Your task to perform on an android device: toggle show notifications on the lock screen Image 0: 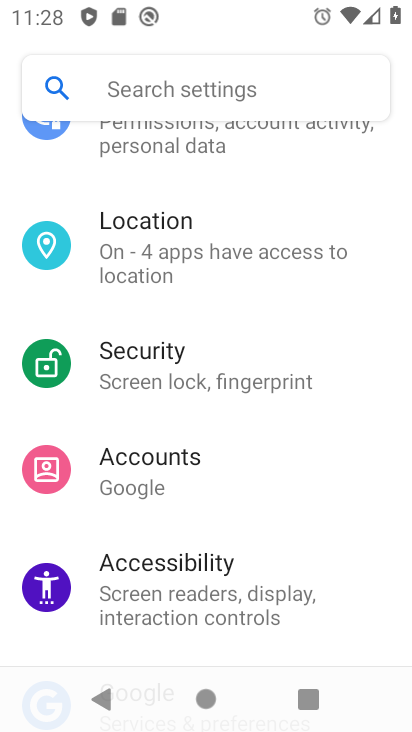
Step 0: drag from (207, 177) to (189, 566)
Your task to perform on an android device: toggle show notifications on the lock screen Image 1: 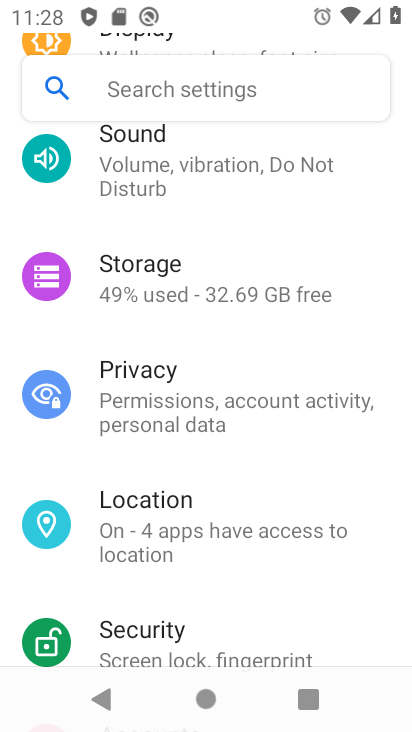
Step 1: drag from (217, 139) to (214, 640)
Your task to perform on an android device: toggle show notifications on the lock screen Image 2: 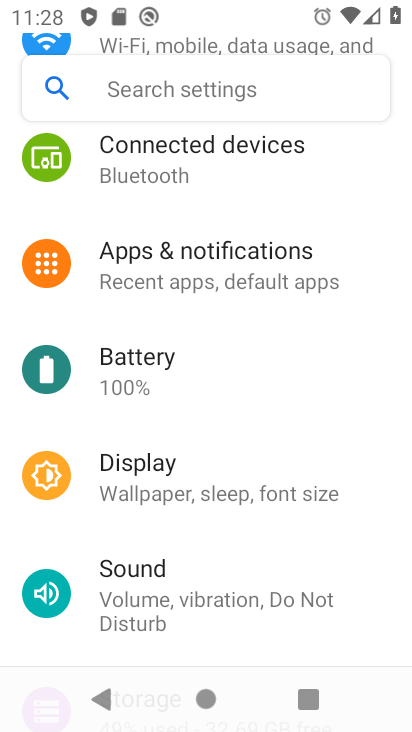
Step 2: click (186, 279)
Your task to perform on an android device: toggle show notifications on the lock screen Image 3: 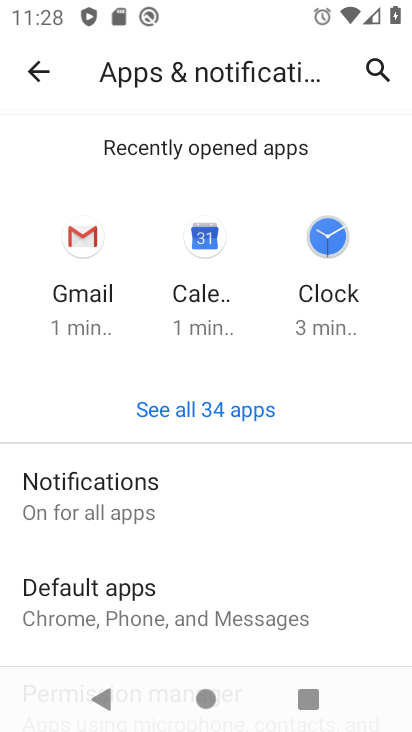
Step 3: click (83, 496)
Your task to perform on an android device: toggle show notifications on the lock screen Image 4: 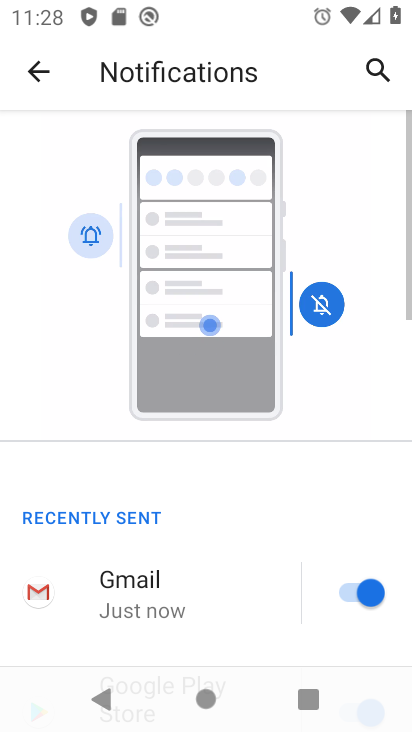
Step 4: drag from (231, 632) to (239, 293)
Your task to perform on an android device: toggle show notifications on the lock screen Image 5: 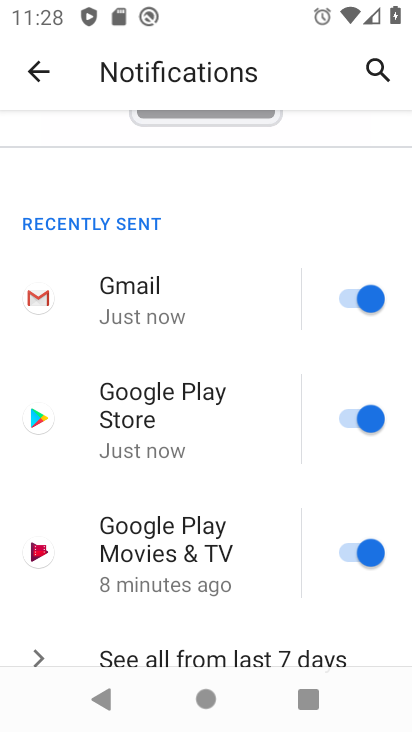
Step 5: drag from (240, 646) to (236, 316)
Your task to perform on an android device: toggle show notifications on the lock screen Image 6: 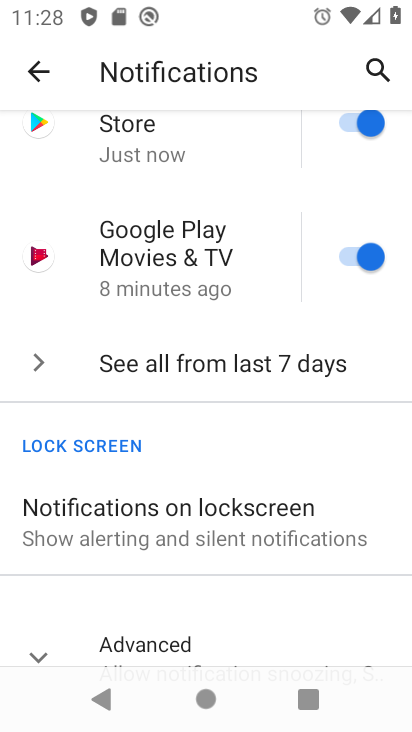
Step 6: click (175, 535)
Your task to perform on an android device: toggle show notifications on the lock screen Image 7: 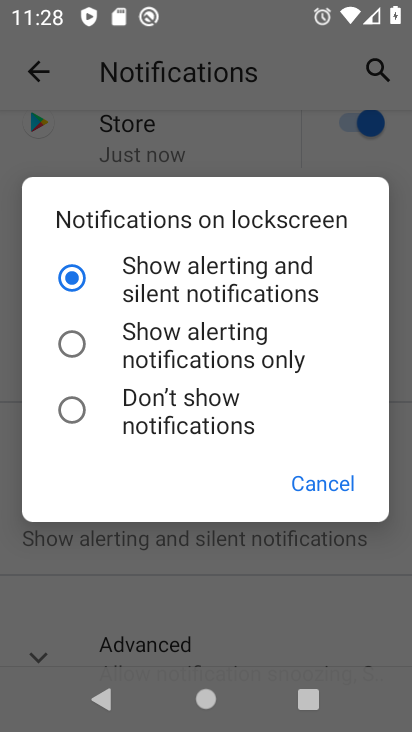
Step 7: click (73, 407)
Your task to perform on an android device: toggle show notifications on the lock screen Image 8: 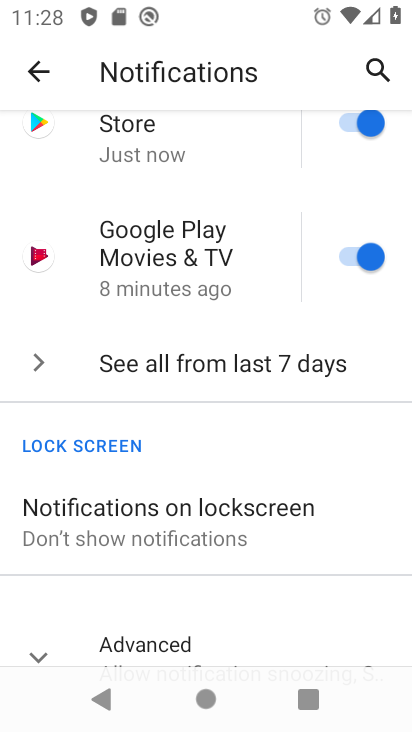
Step 8: task complete